Your task to perform on an android device: turn on airplane mode Image 0: 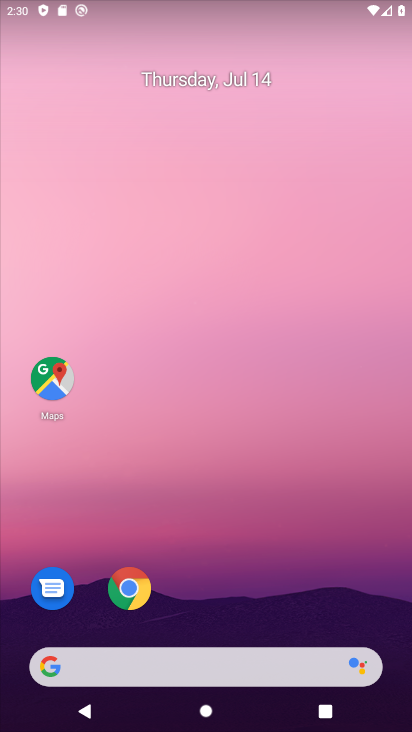
Step 0: drag from (167, 666) to (211, 13)
Your task to perform on an android device: turn on airplane mode Image 1: 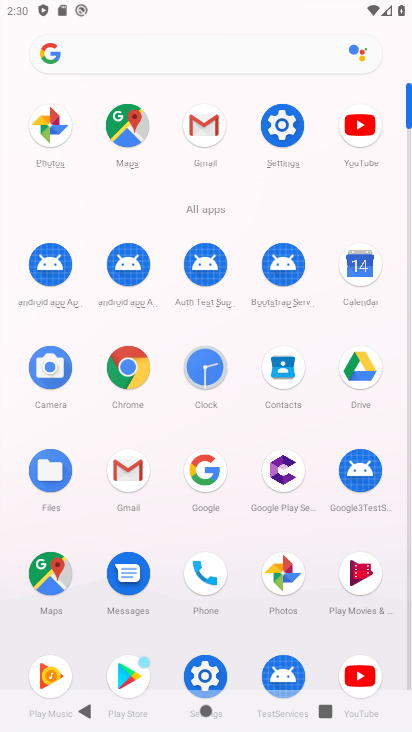
Step 1: click (279, 142)
Your task to perform on an android device: turn on airplane mode Image 2: 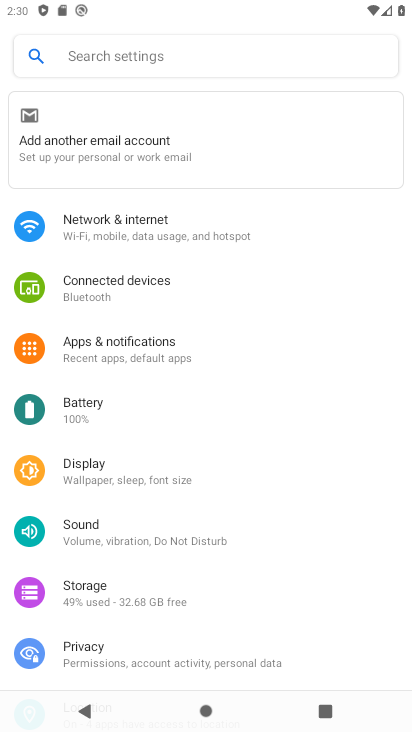
Step 2: click (100, 219)
Your task to perform on an android device: turn on airplane mode Image 3: 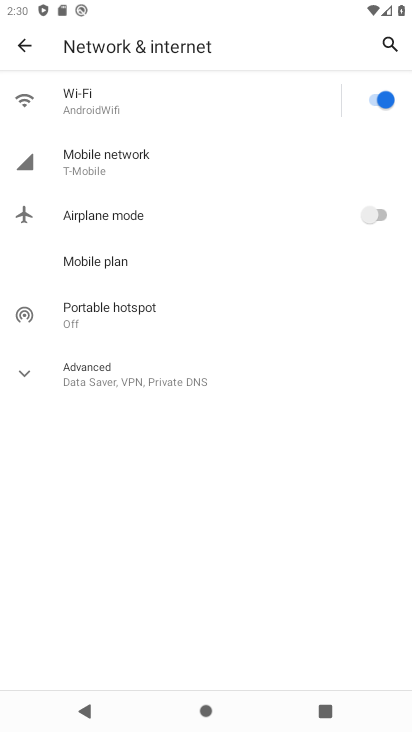
Step 3: click (370, 216)
Your task to perform on an android device: turn on airplane mode Image 4: 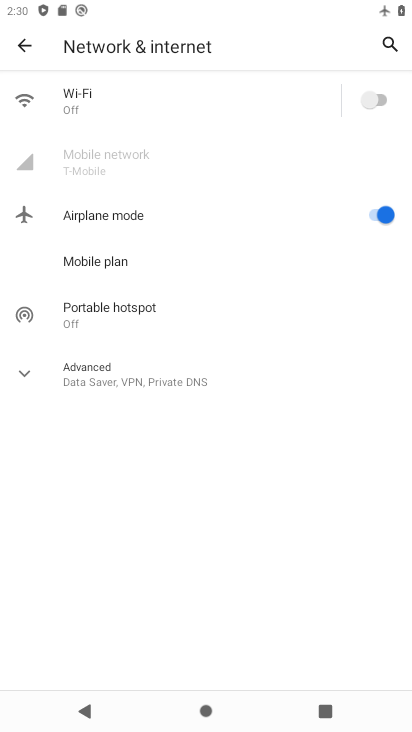
Step 4: task complete